Your task to perform on an android device: Do I have any events tomorrow? Image 0: 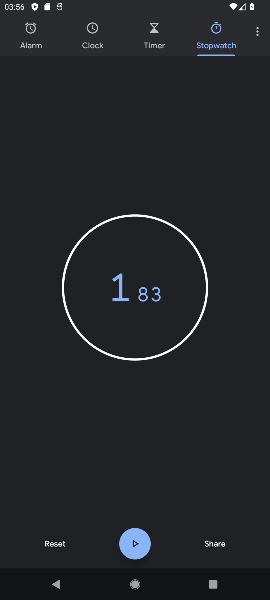
Step 0: press home button
Your task to perform on an android device: Do I have any events tomorrow? Image 1: 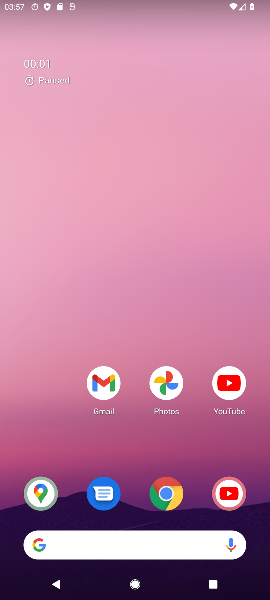
Step 1: drag from (35, 586) to (81, 73)
Your task to perform on an android device: Do I have any events tomorrow? Image 2: 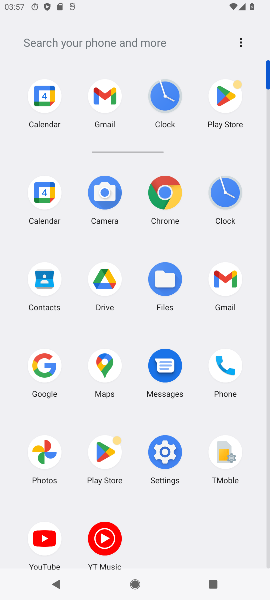
Step 2: click (43, 205)
Your task to perform on an android device: Do I have any events tomorrow? Image 3: 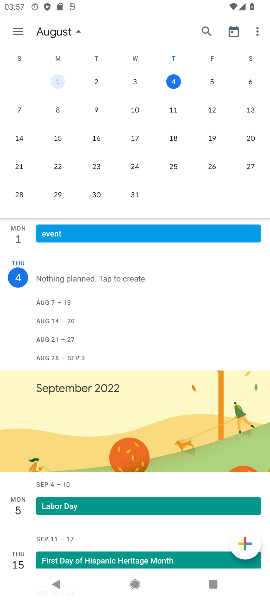
Step 3: task complete